Your task to perform on an android device: turn off priority inbox in the gmail app Image 0: 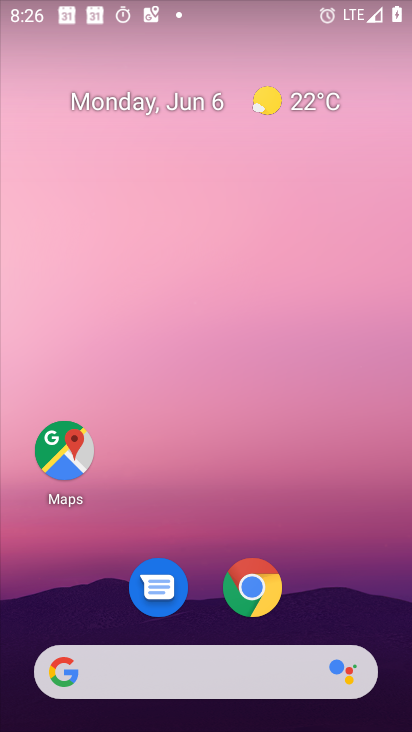
Step 0: drag from (195, 651) to (212, 295)
Your task to perform on an android device: turn off priority inbox in the gmail app Image 1: 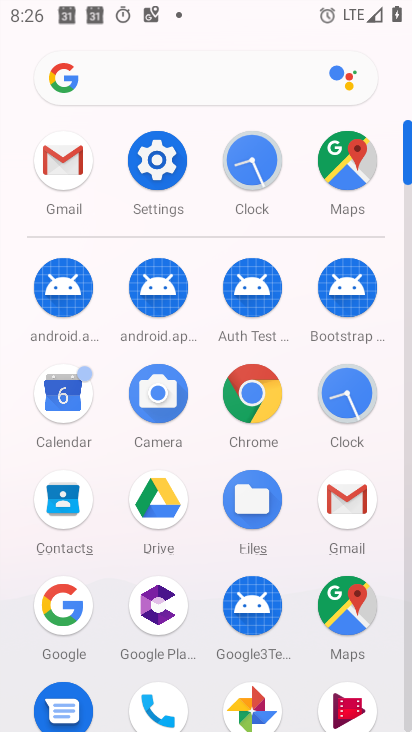
Step 1: click (74, 155)
Your task to perform on an android device: turn off priority inbox in the gmail app Image 2: 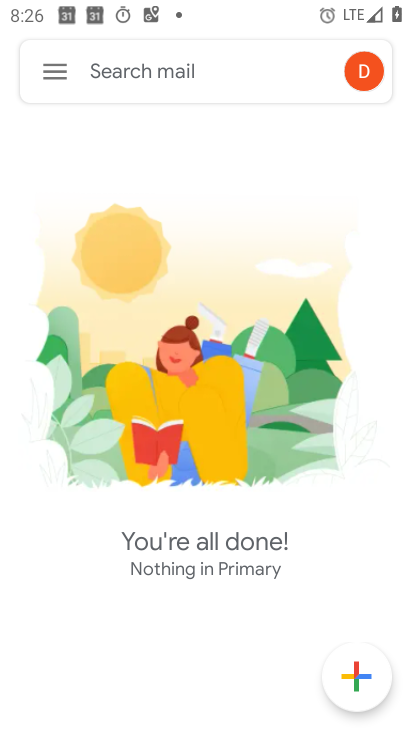
Step 2: click (61, 82)
Your task to perform on an android device: turn off priority inbox in the gmail app Image 3: 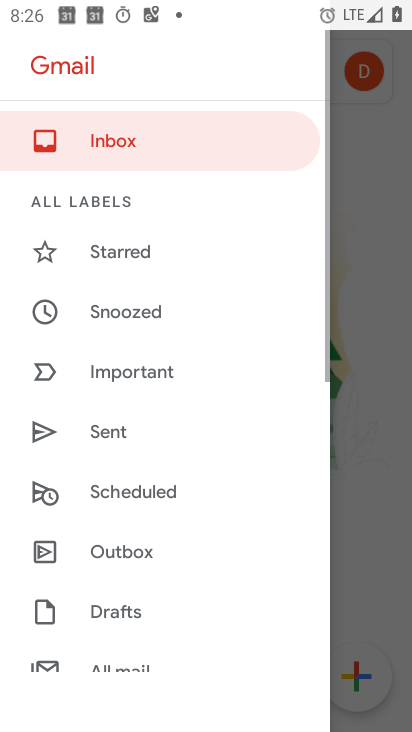
Step 3: drag from (129, 664) to (128, 264)
Your task to perform on an android device: turn off priority inbox in the gmail app Image 4: 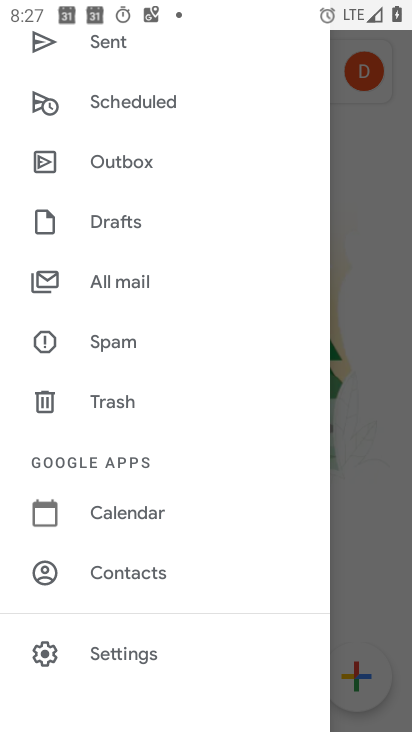
Step 4: click (143, 648)
Your task to perform on an android device: turn off priority inbox in the gmail app Image 5: 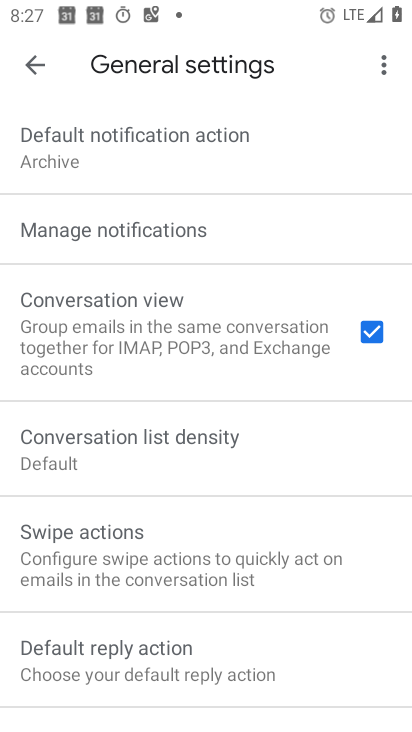
Step 5: click (43, 65)
Your task to perform on an android device: turn off priority inbox in the gmail app Image 6: 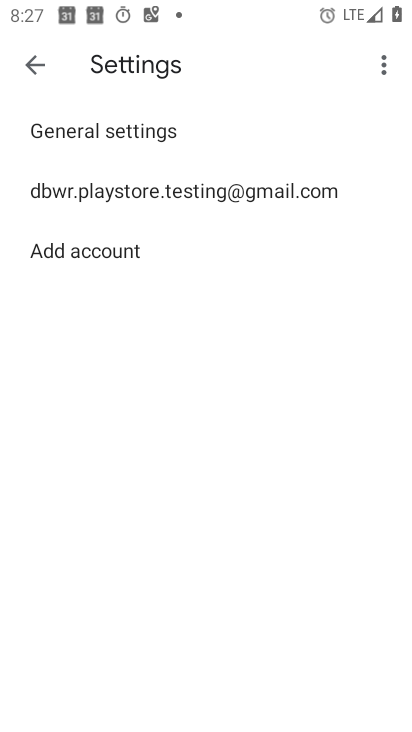
Step 6: click (93, 176)
Your task to perform on an android device: turn off priority inbox in the gmail app Image 7: 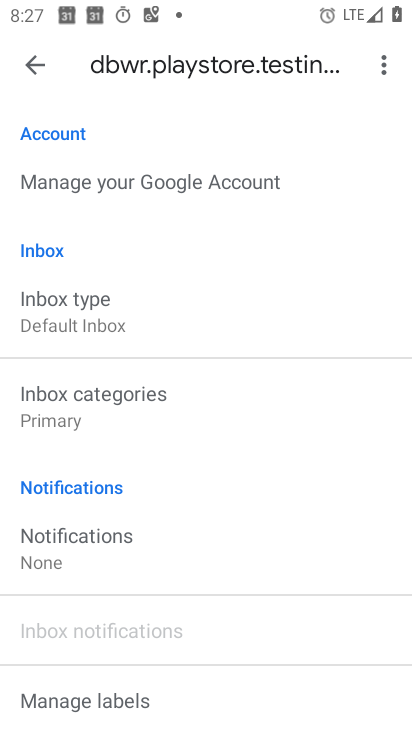
Step 7: click (84, 312)
Your task to perform on an android device: turn off priority inbox in the gmail app Image 8: 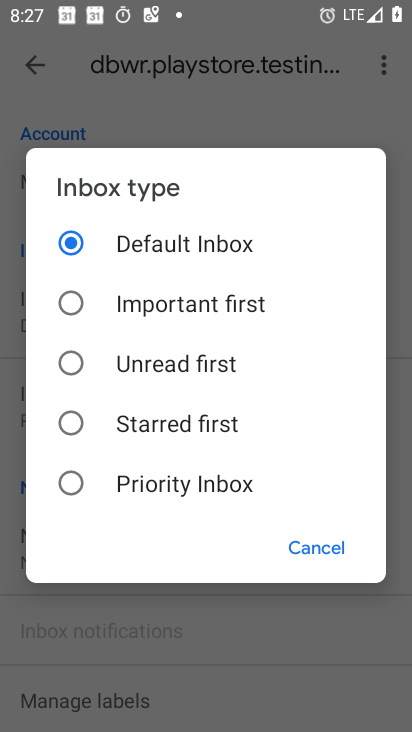
Step 8: click (307, 559)
Your task to perform on an android device: turn off priority inbox in the gmail app Image 9: 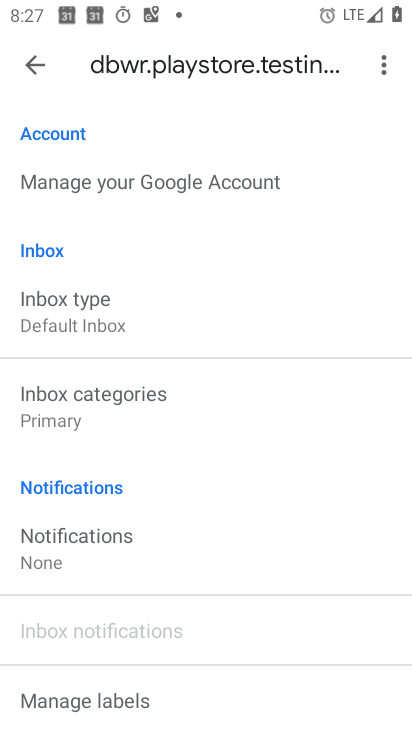
Step 9: task complete